Your task to perform on an android device: turn off javascript in the chrome app Image 0: 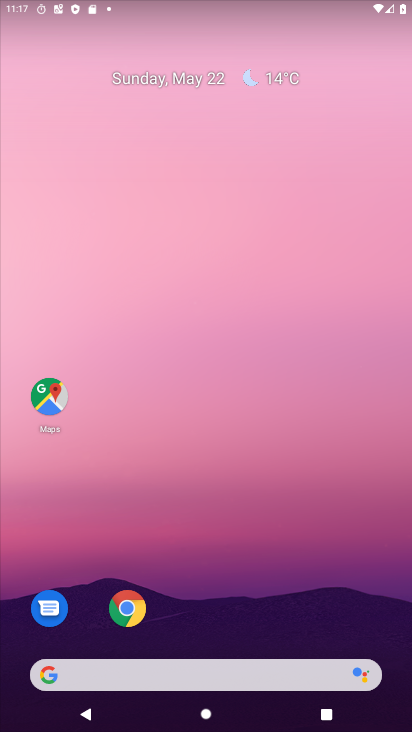
Step 0: click (128, 604)
Your task to perform on an android device: turn off javascript in the chrome app Image 1: 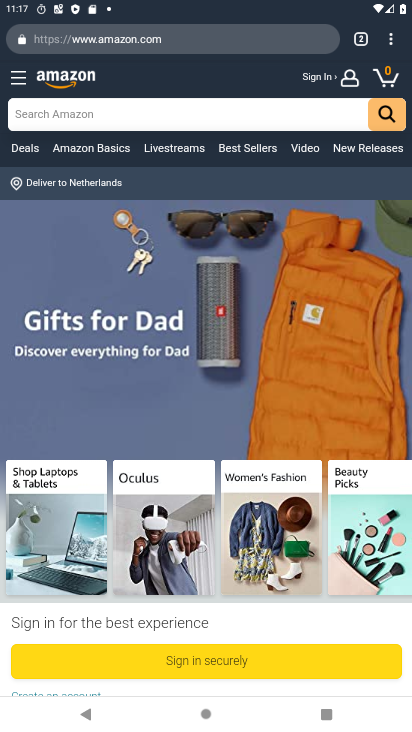
Step 1: click (392, 45)
Your task to perform on an android device: turn off javascript in the chrome app Image 2: 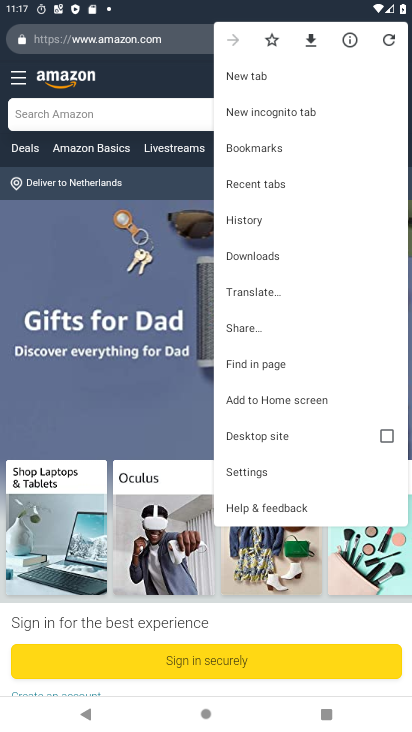
Step 2: click (243, 474)
Your task to perform on an android device: turn off javascript in the chrome app Image 3: 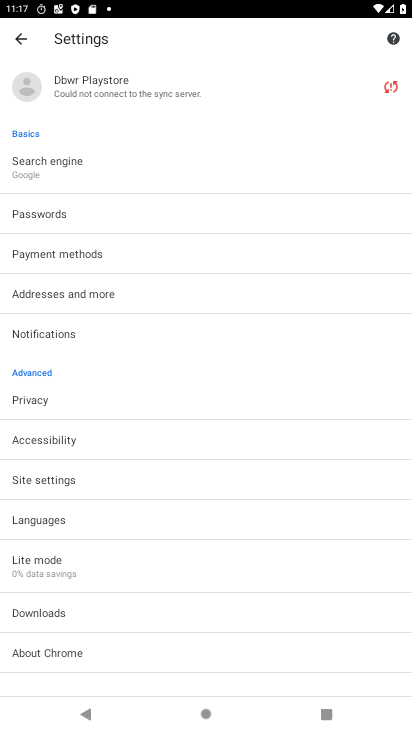
Step 3: click (46, 478)
Your task to perform on an android device: turn off javascript in the chrome app Image 4: 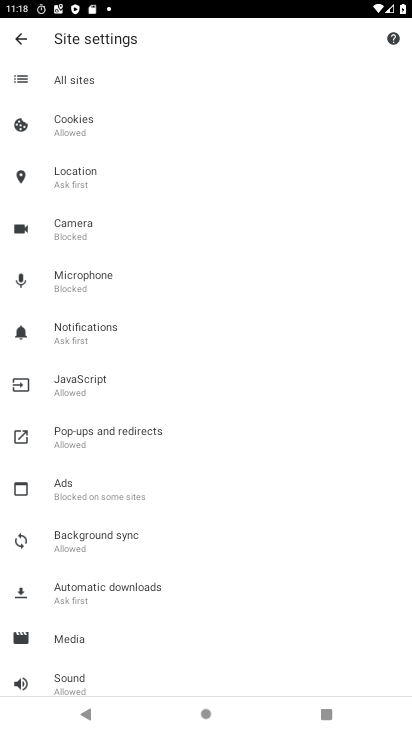
Step 4: click (64, 382)
Your task to perform on an android device: turn off javascript in the chrome app Image 5: 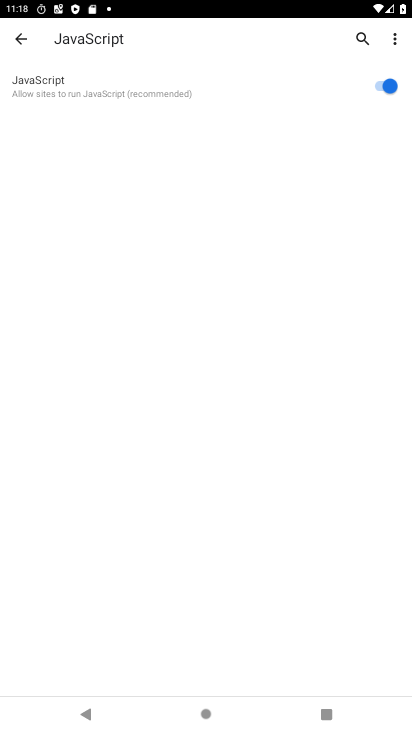
Step 5: click (382, 87)
Your task to perform on an android device: turn off javascript in the chrome app Image 6: 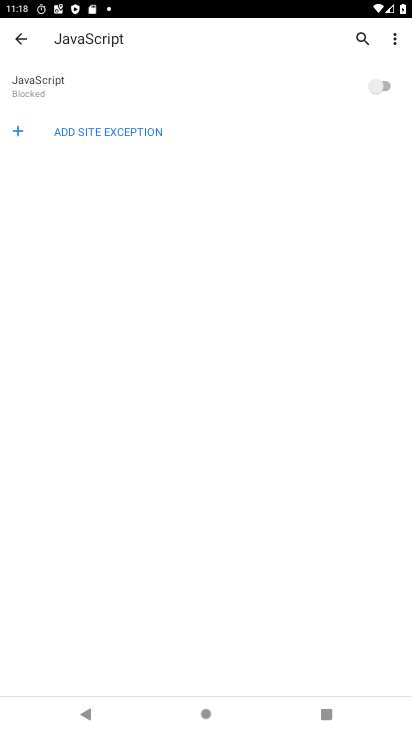
Step 6: task complete